Your task to perform on an android device: Install the Lyft app Image 0: 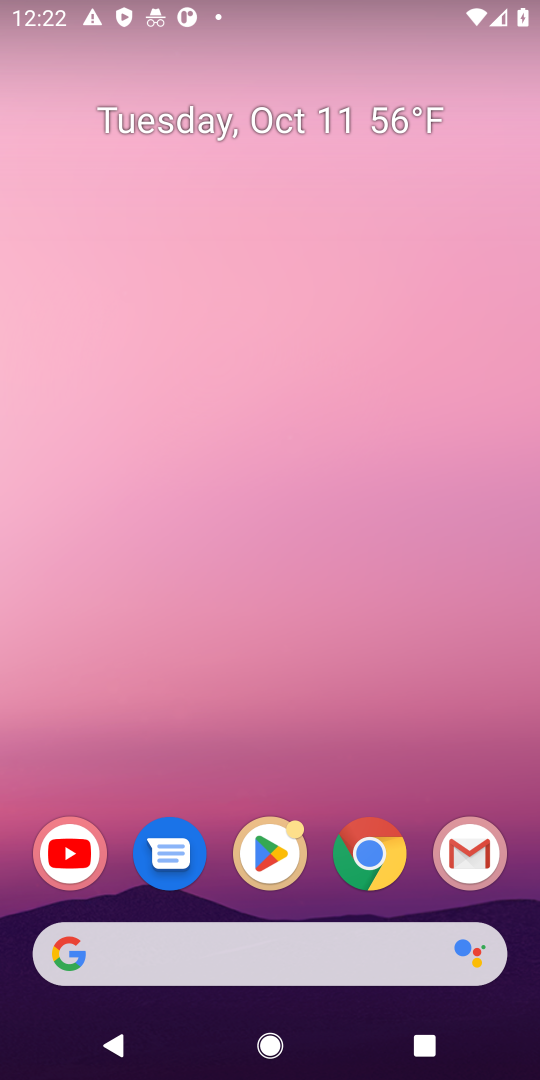
Step 0: drag from (334, 804) to (516, 6)
Your task to perform on an android device: Install the Lyft app Image 1: 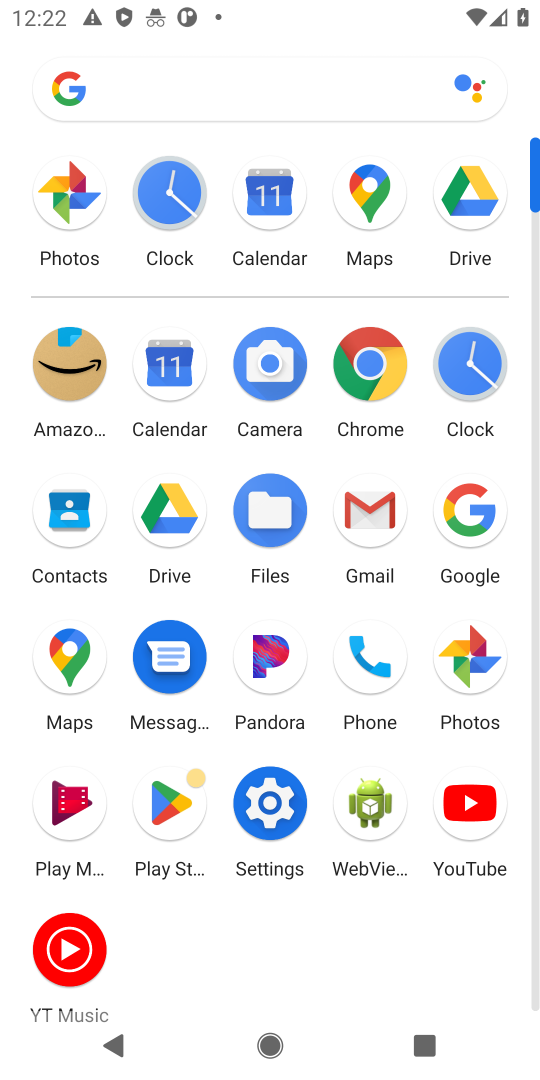
Step 1: click (172, 802)
Your task to perform on an android device: Install the Lyft app Image 2: 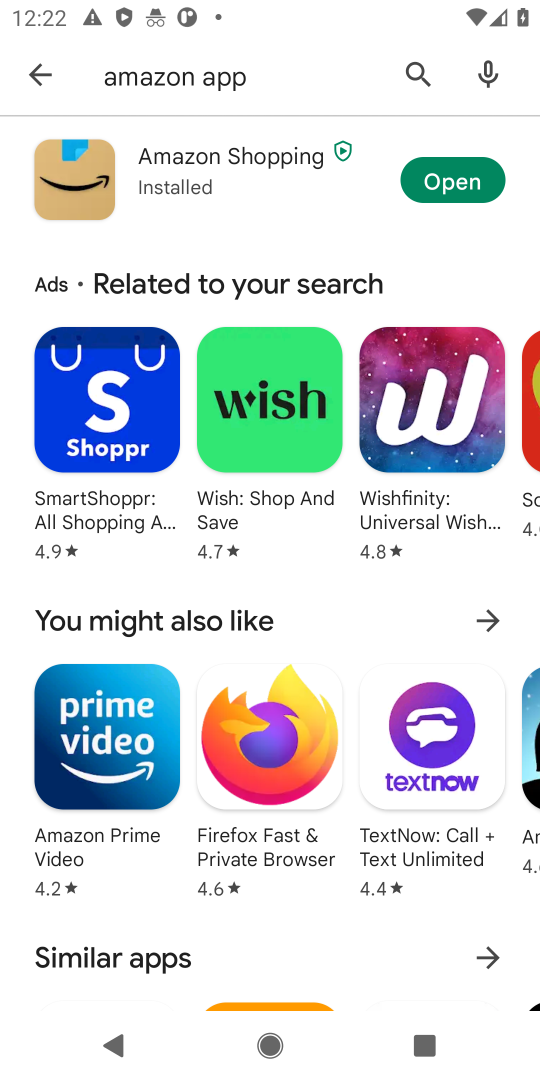
Step 2: click (413, 74)
Your task to perform on an android device: Install the Lyft app Image 3: 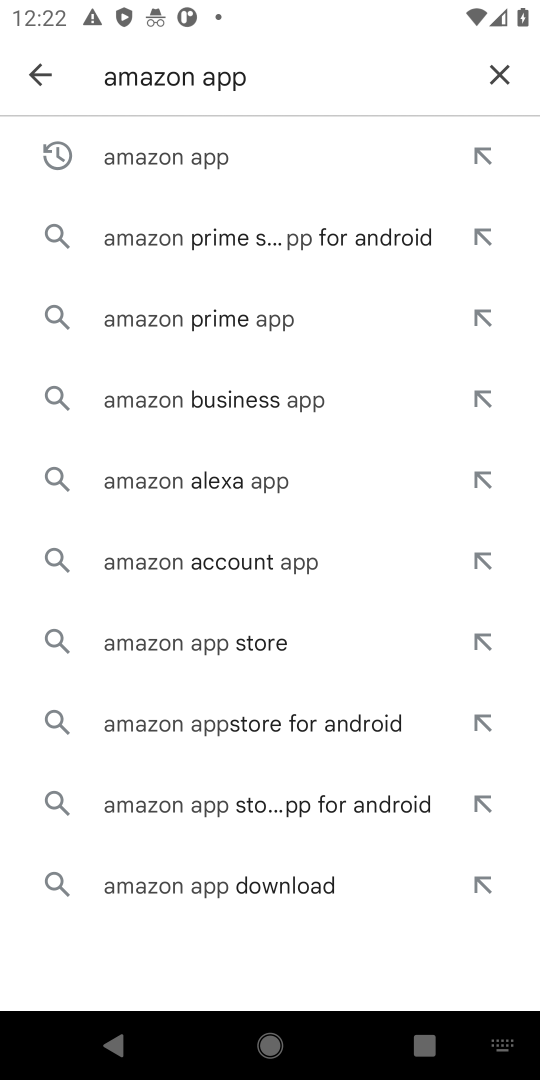
Step 3: click (487, 74)
Your task to perform on an android device: Install the Lyft app Image 4: 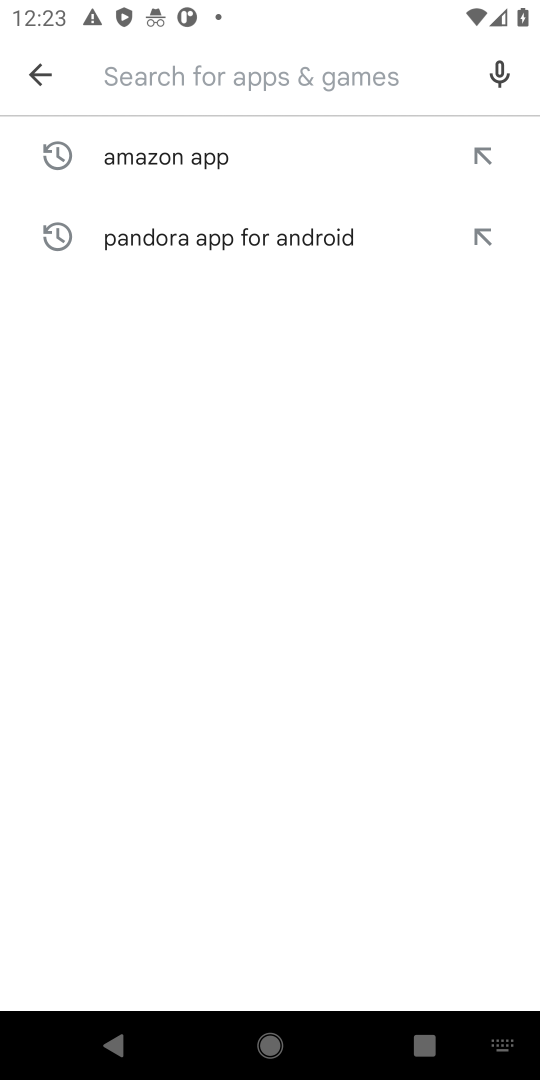
Step 4: type "Lyft app"
Your task to perform on an android device: Install the Lyft app Image 5: 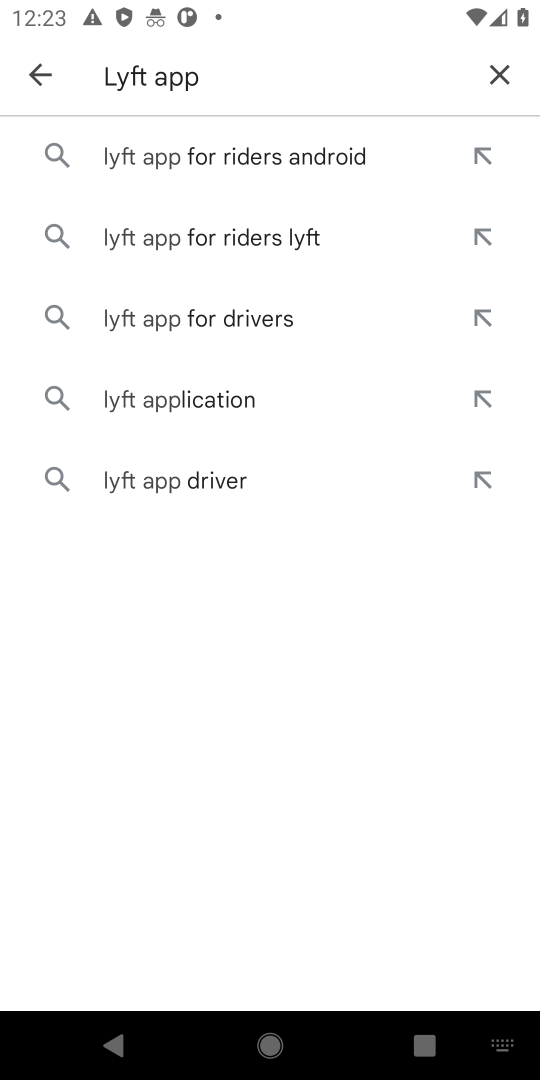
Step 5: click (261, 149)
Your task to perform on an android device: Install the Lyft app Image 6: 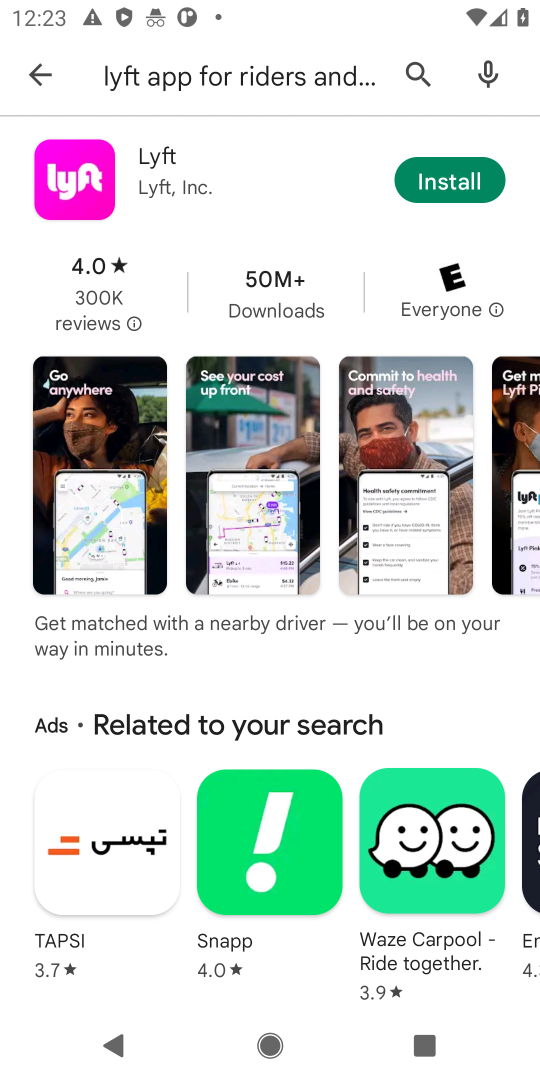
Step 6: click (439, 183)
Your task to perform on an android device: Install the Lyft app Image 7: 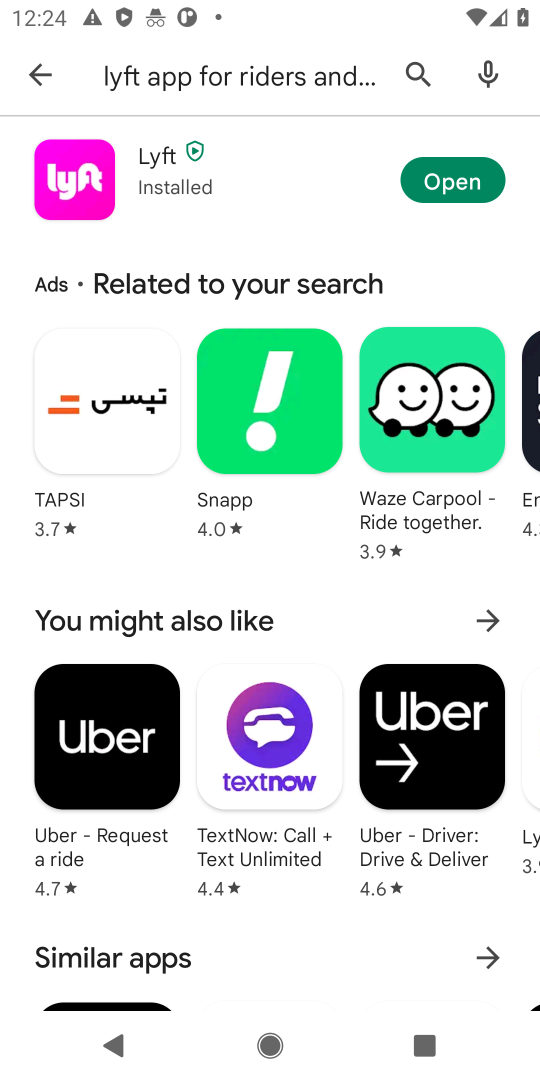
Step 7: click (471, 169)
Your task to perform on an android device: Install the Lyft app Image 8: 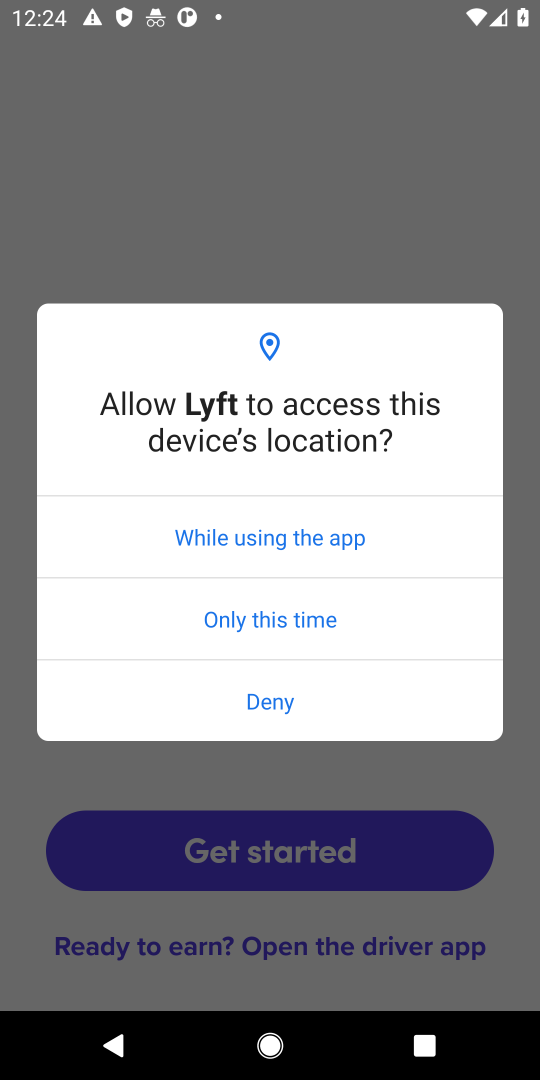
Step 8: click (269, 696)
Your task to perform on an android device: Install the Lyft app Image 9: 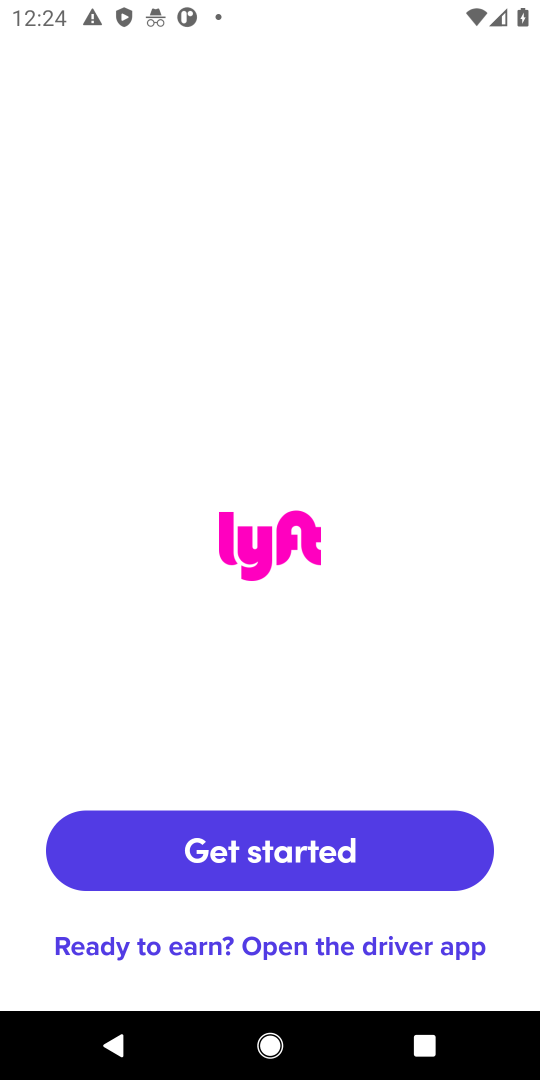
Step 9: task complete